Your task to perform on an android device: What's the news in Laos? Image 0: 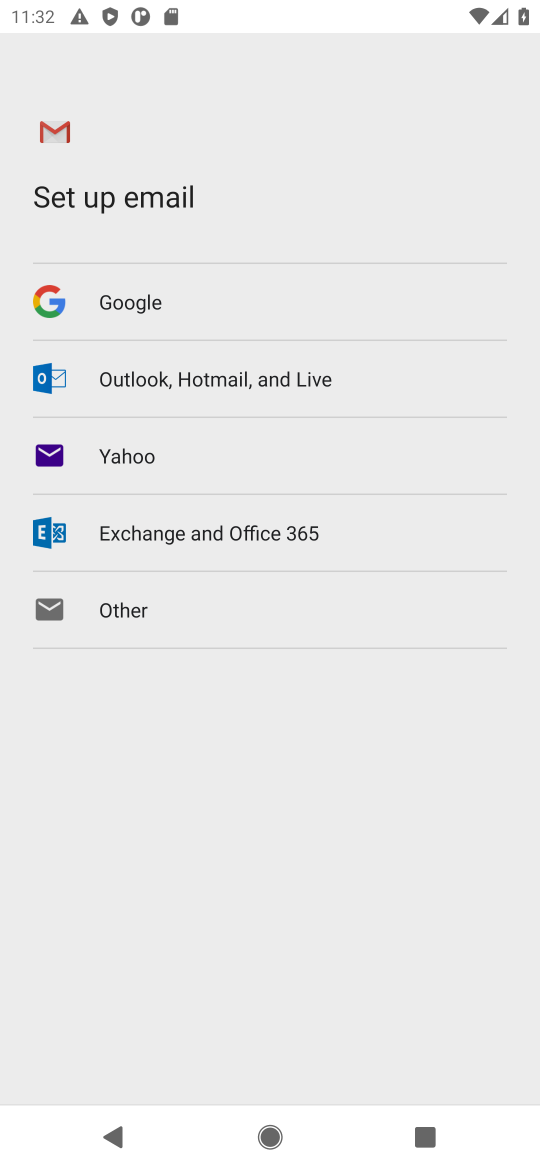
Step 0: press home button
Your task to perform on an android device: What's the news in Laos? Image 1: 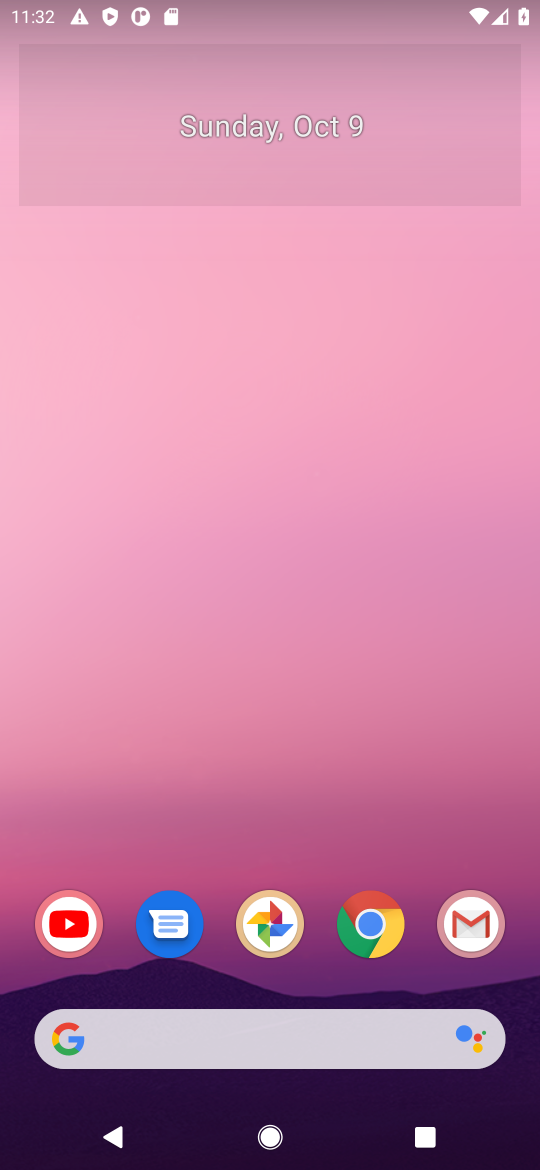
Step 1: drag from (325, 875) to (340, 102)
Your task to perform on an android device: What's the news in Laos? Image 2: 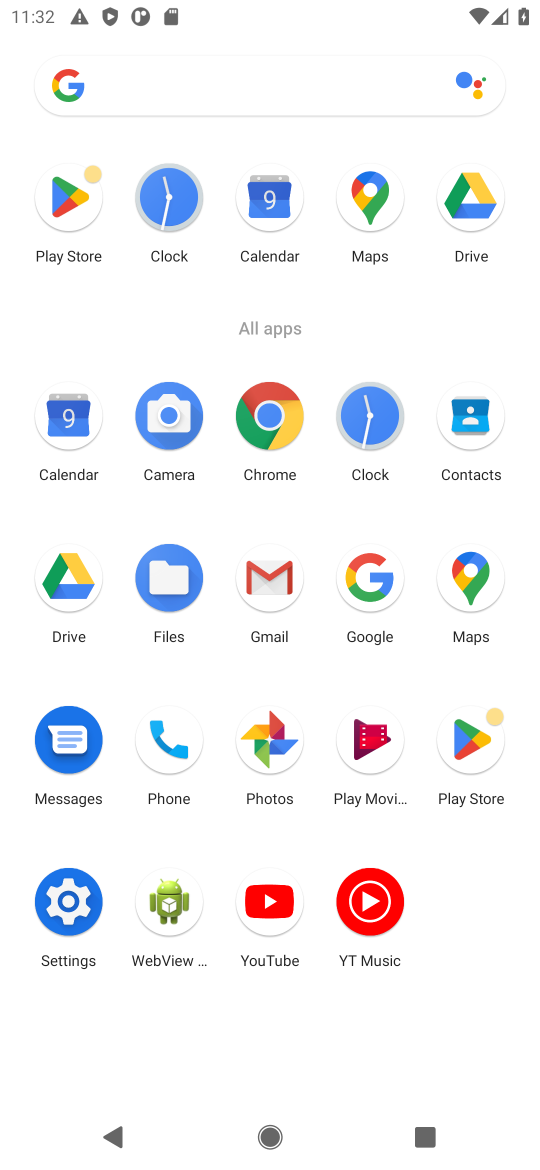
Step 2: click (257, 401)
Your task to perform on an android device: What's the news in Laos? Image 3: 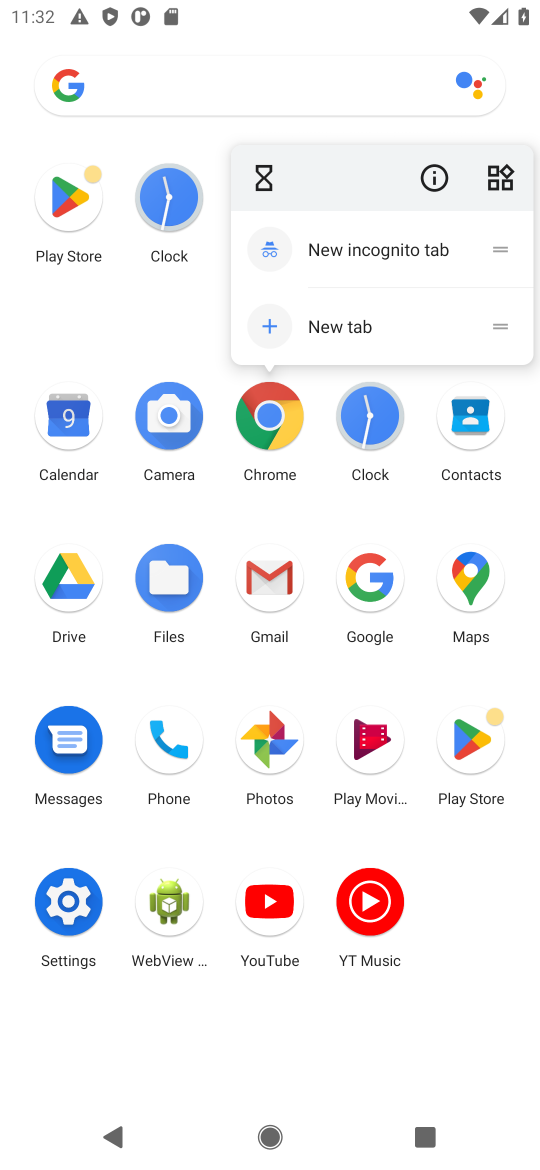
Step 3: click (269, 425)
Your task to perform on an android device: What's the news in Laos? Image 4: 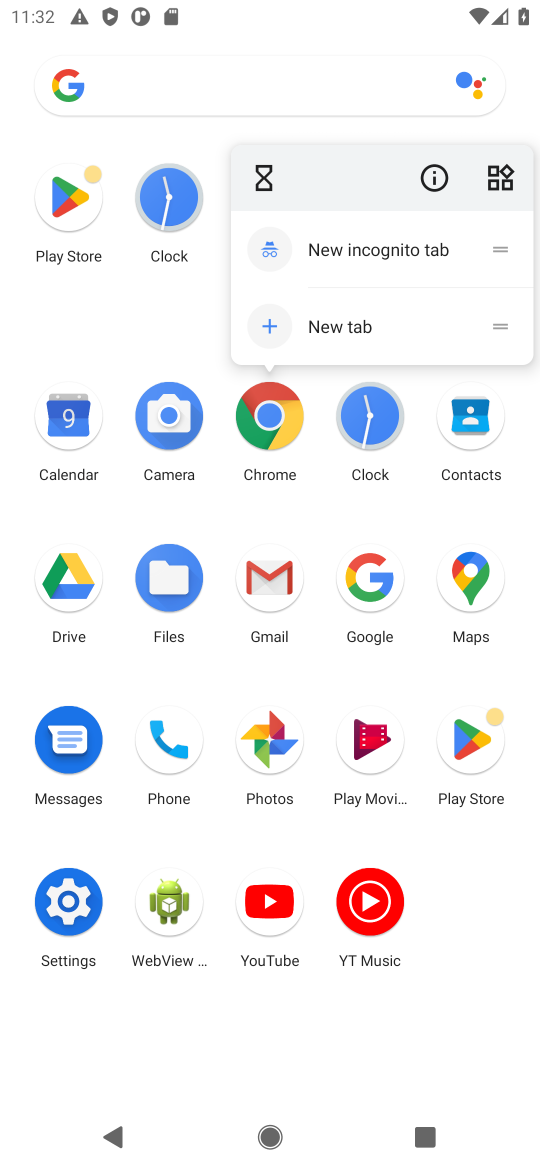
Step 4: click (271, 424)
Your task to perform on an android device: What's the news in Laos? Image 5: 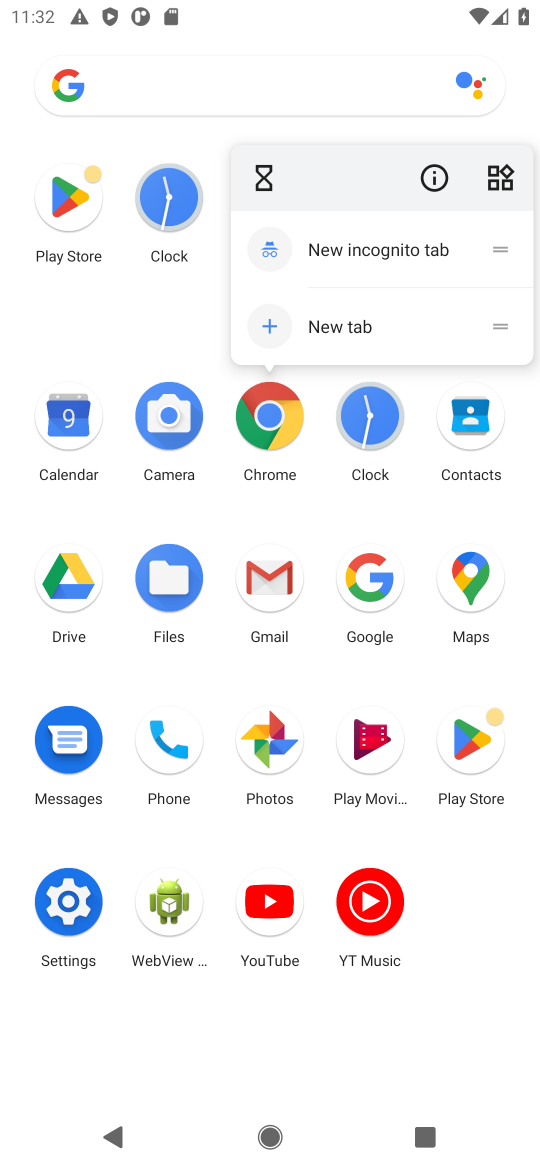
Step 5: click (275, 422)
Your task to perform on an android device: What's the news in Laos? Image 6: 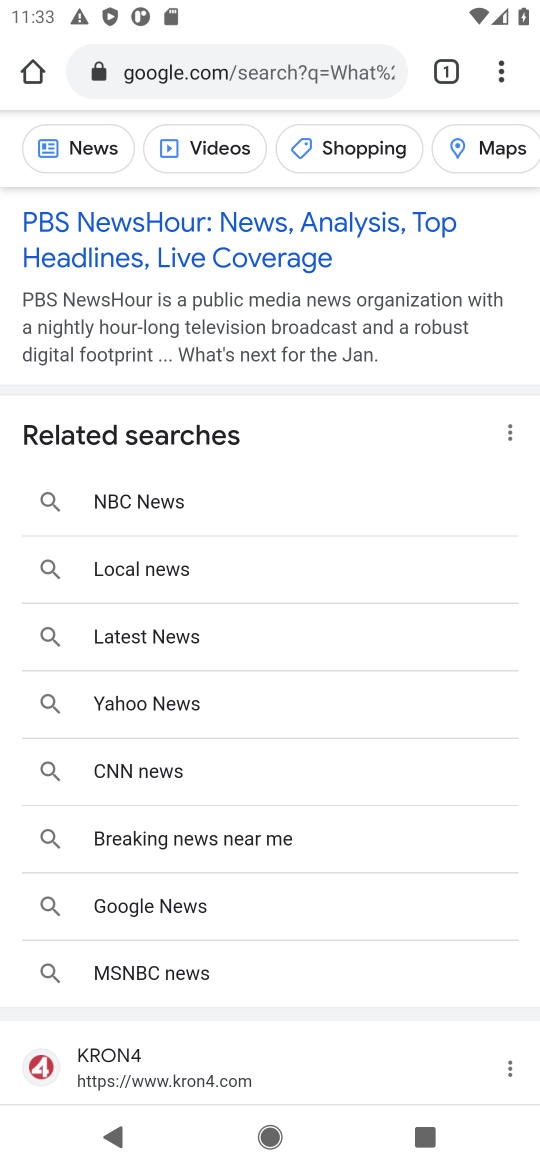
Step 6: click (275, 429)
Your task to perform on an android device: What's the news in Laos? Image 7: 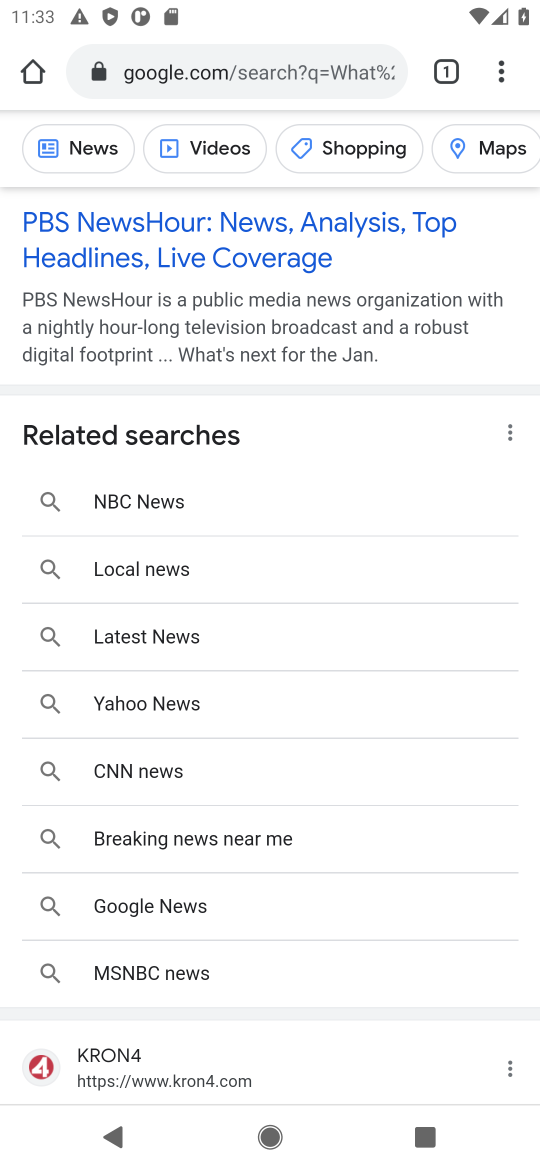
Step 7: click (302, 61)
Your task to perform on an android device: What's the news in Laos? Image 8: 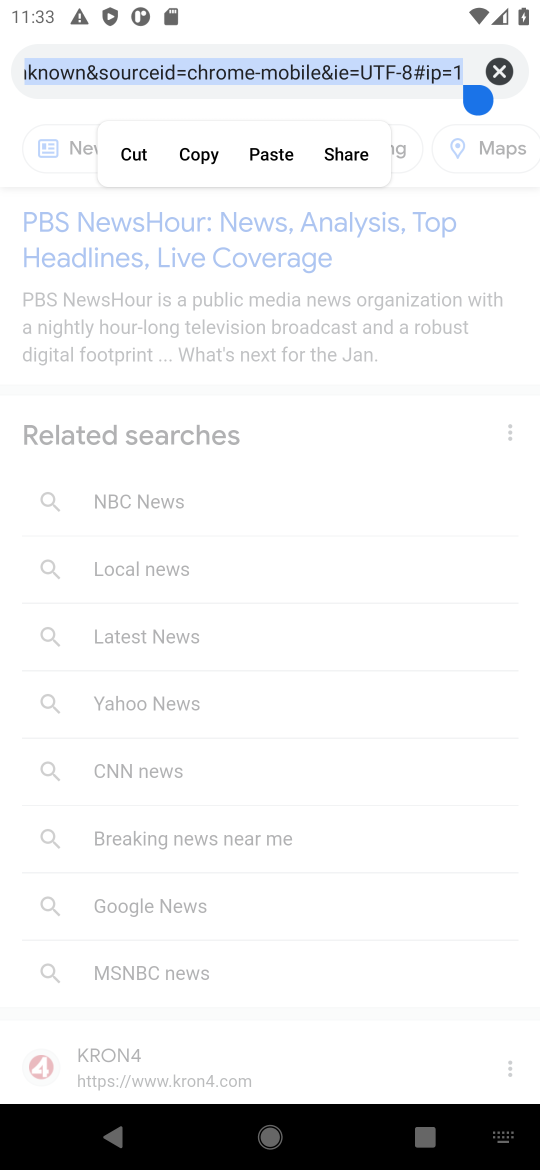
Step 8: click (490, 81)
Your task to perform on an android device: What's the news in Laos? Image 9: 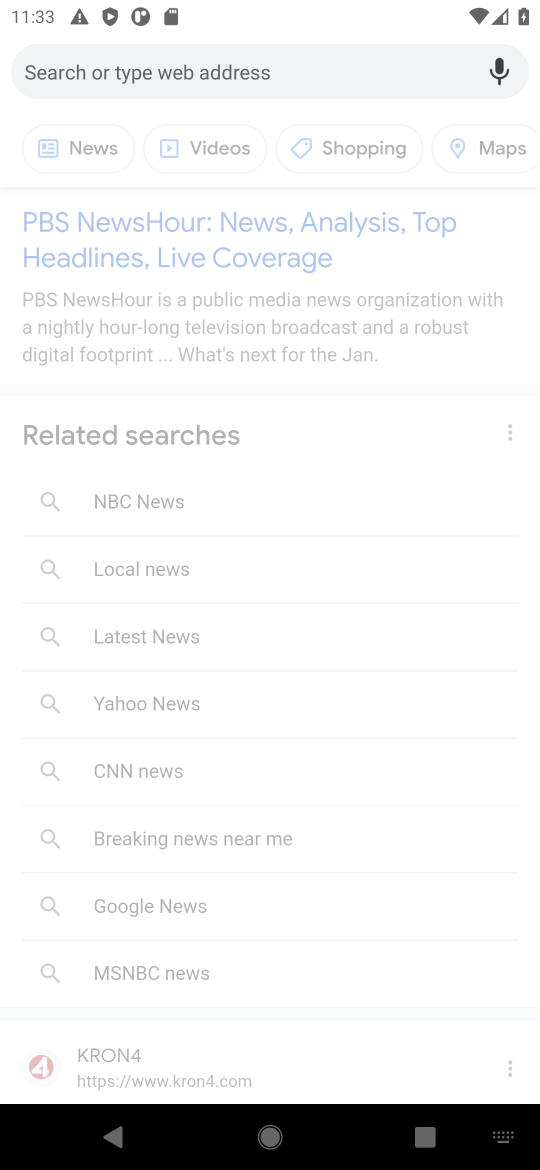
Step 9: type "What's the news in Laos?"
Your task to perform on an android device: What's the news in Laos? Image 10: 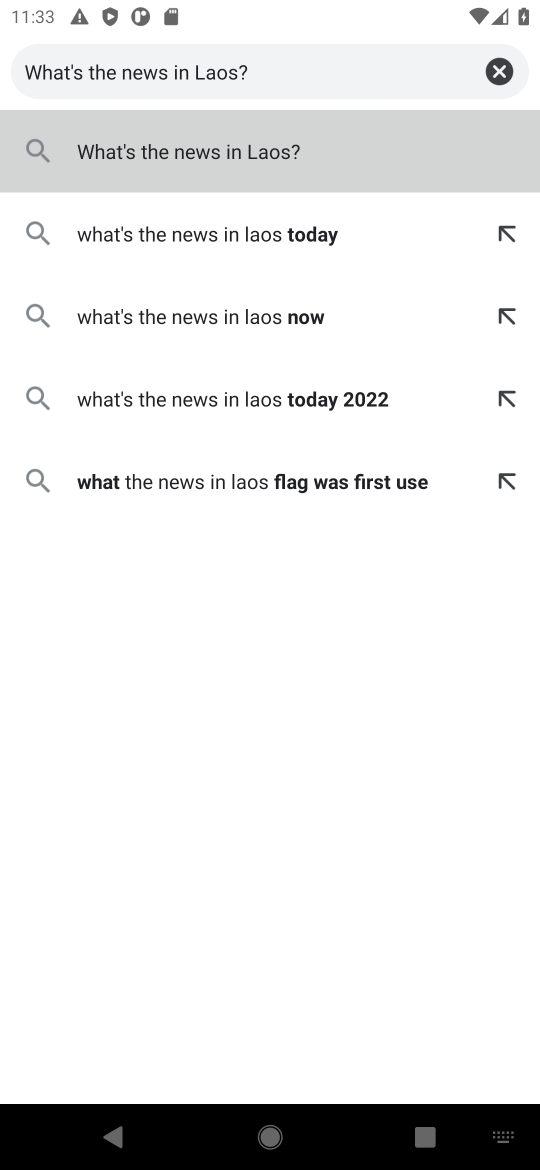
Step 10: press enter
Your task to perform on an android device: What's the news in Laos? Image 11: 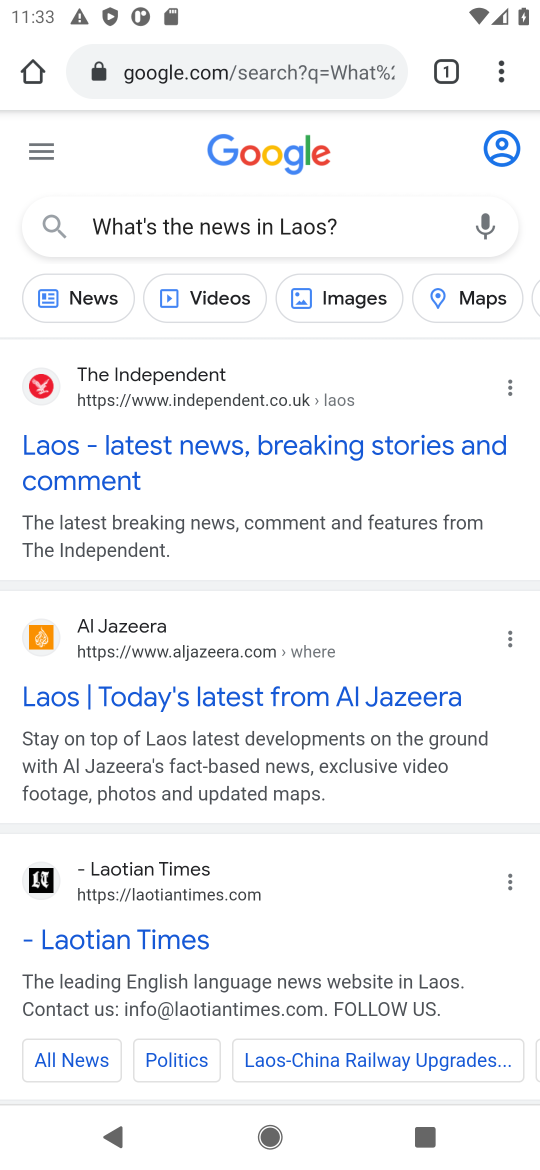
Step 11: click (105, 458)
Your task to perform on an android device: What's the news in Laos? Image 12: 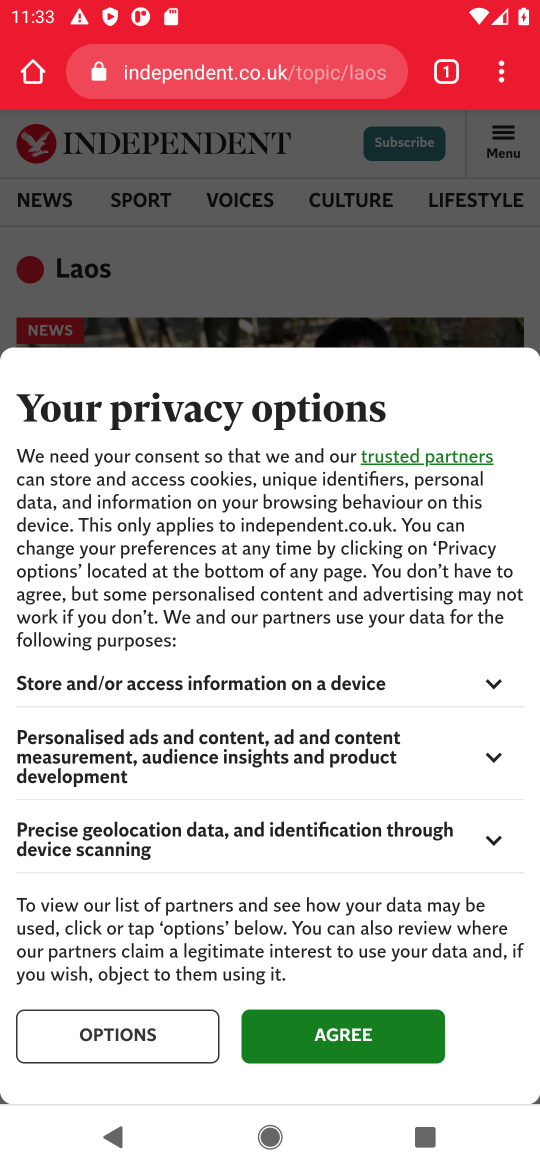
Step 12: task complete